Your task to perform on an android device: open a new tab in the chrome app Image 0: 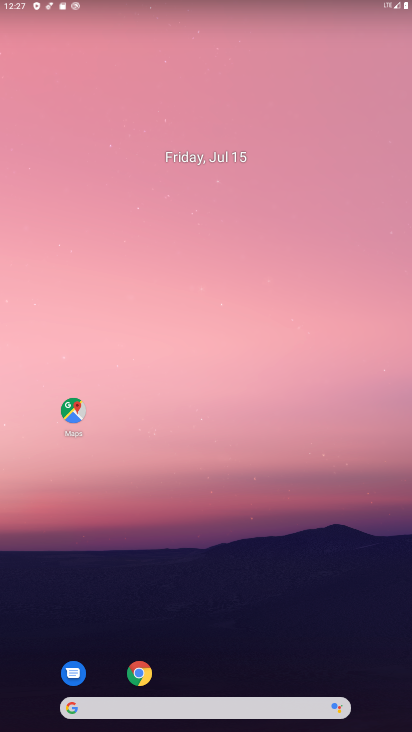
Step 0: click (134, 667)
Your task to perform on an android device: open a new tab in the chrome app Image 1: 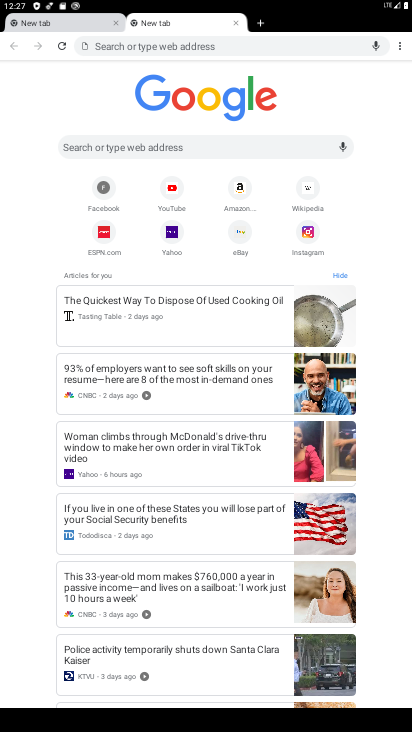
Step 1: click (398, 48)
Your task to perform on an android device: open a new tab in the chrome app Image 2: 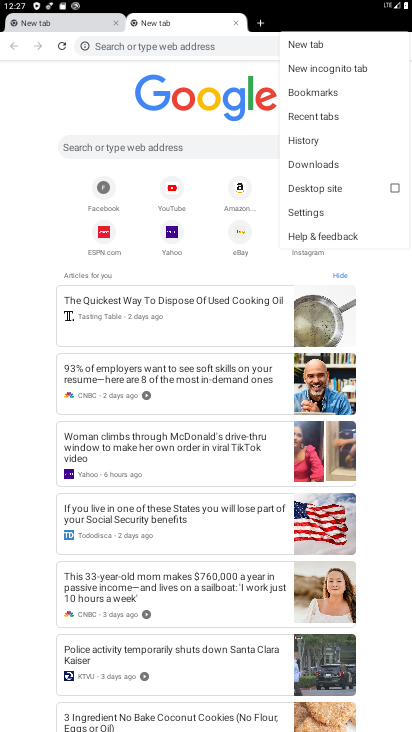
Step 2: click (332, 45)
Your task to perform on an android device: open a new tab in the chrome app Image 3: 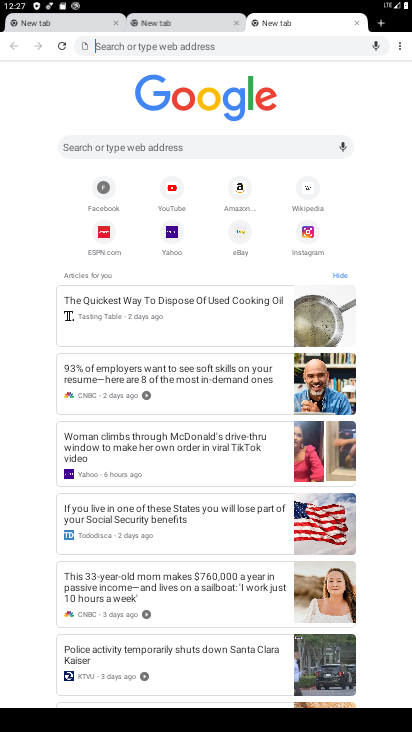
Step 3: task complete